Your task to perform on an android device: toggle airplane mode Image 0: 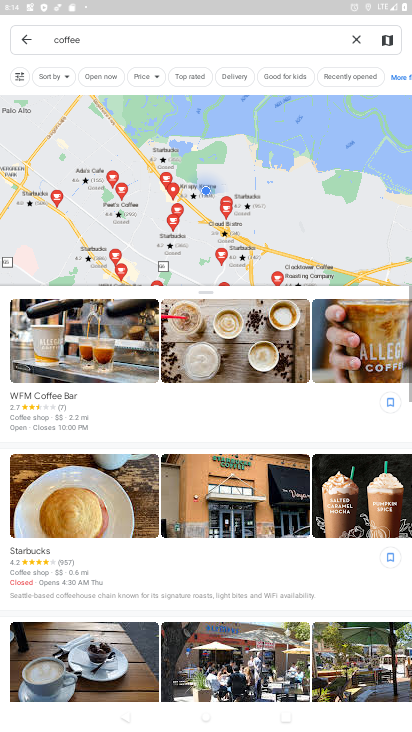
Step 0: press home button
Your task to perform on an android device: toggle airplane mode Image 1: 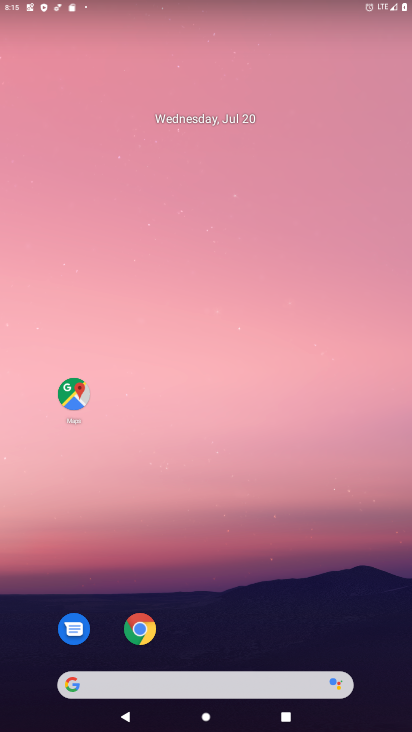
Step 1: drag from (195, 590) to (226, 142)
Your task to perform on an android device: toggle airplane mode Image 2: 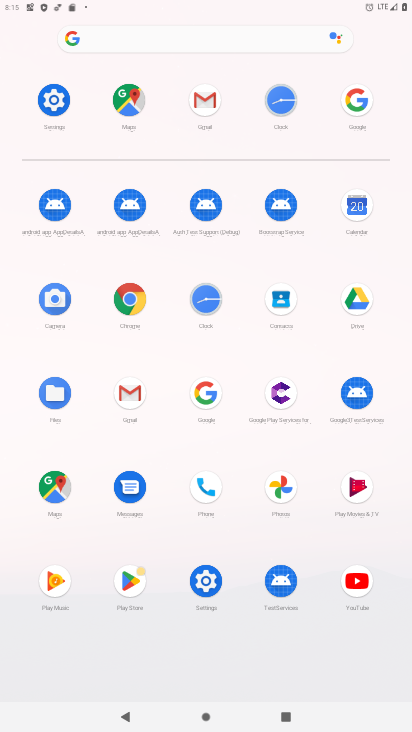
Step 2: click (204, 582)
Your task to perform on an android device: toggle airplane mode Image 3: 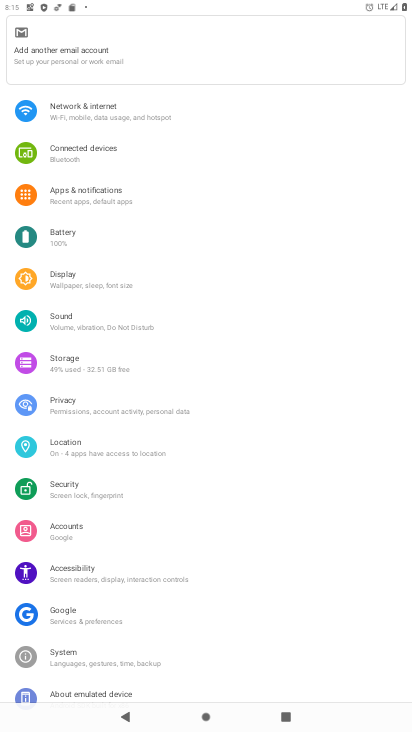
Step 3: click (64, 105)
Your task to perform on an android device: toggle airplane mode Image 4: 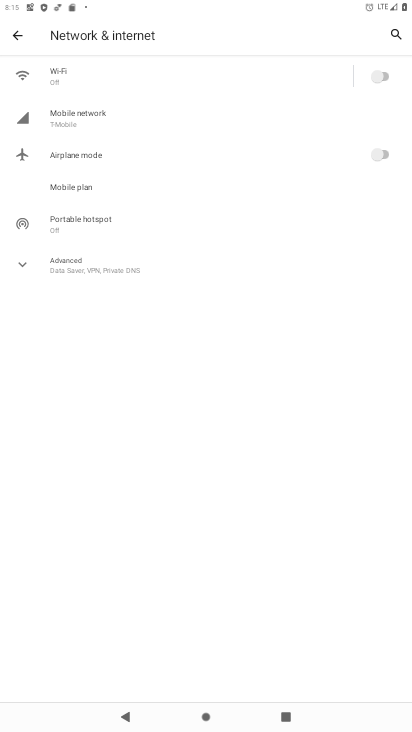
Step 4: click (385, 155)
Your task to perform on an android device: toggle airplane mode Image 5: 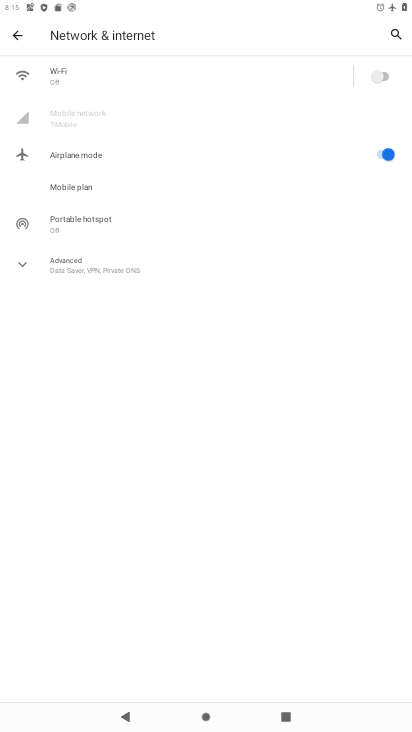
Step 5: task complete